Your task to perform on an android device: open app "Gmail" Image 0: 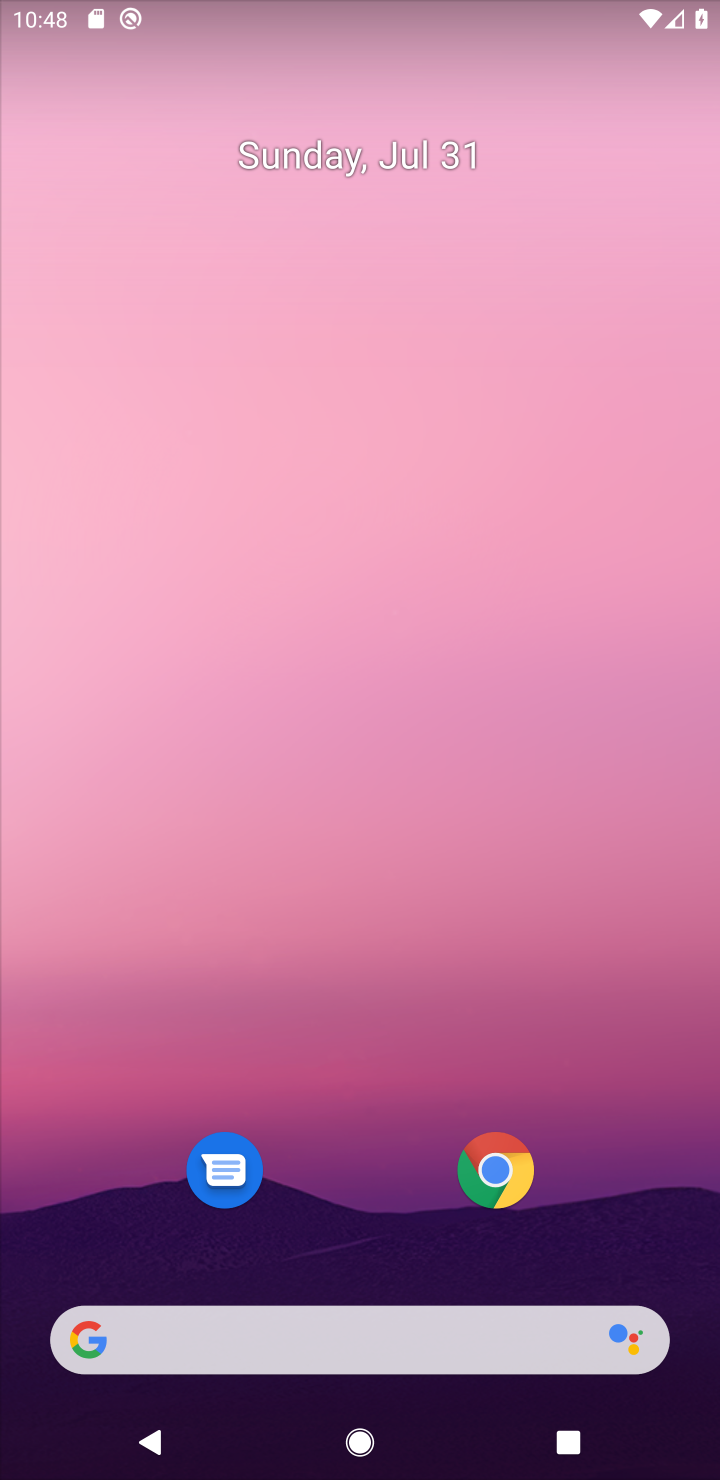
Step 0: drag from (638, 1247) to (553, 0)
Your task to perform on an android device: open app "Gmail" Image 1: 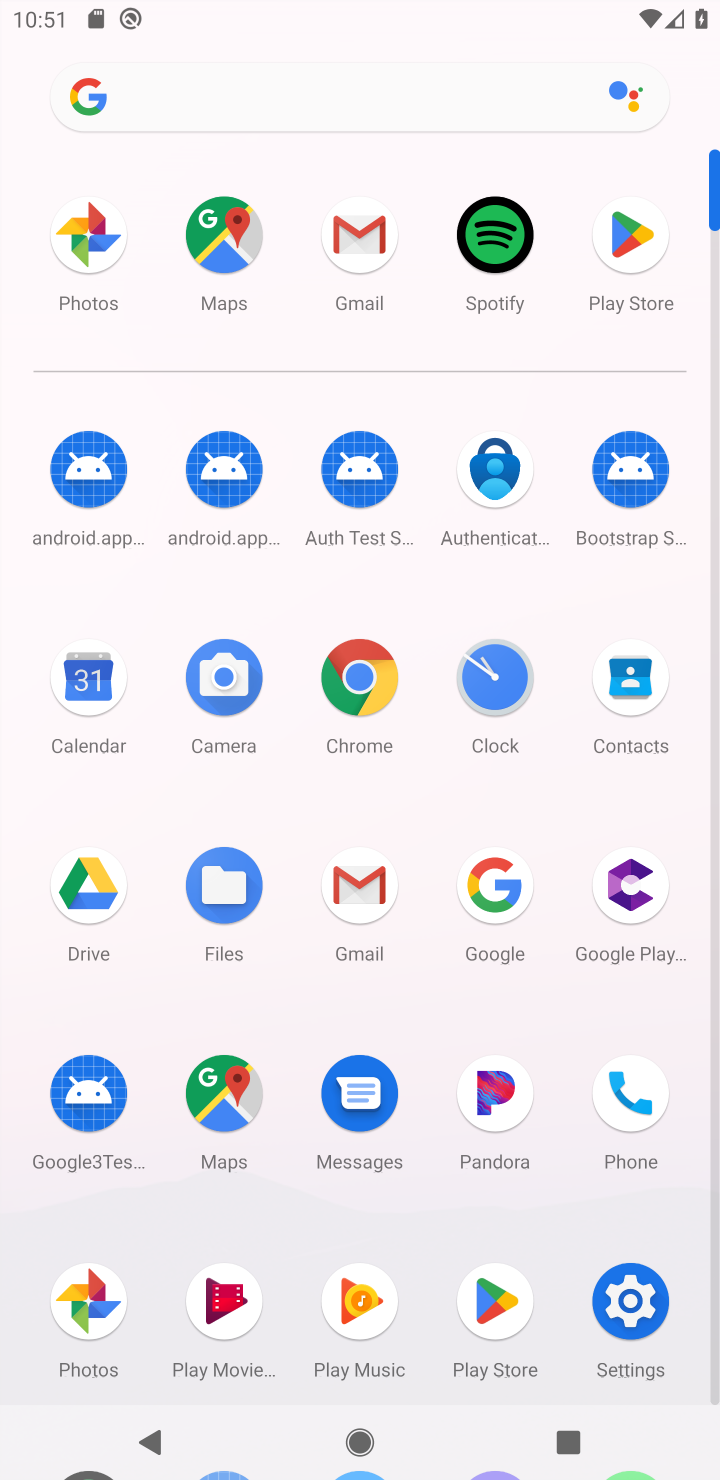
Step 1: click (655, 235)
Your task to perform on an android device: open app "Gmail" Image 2: 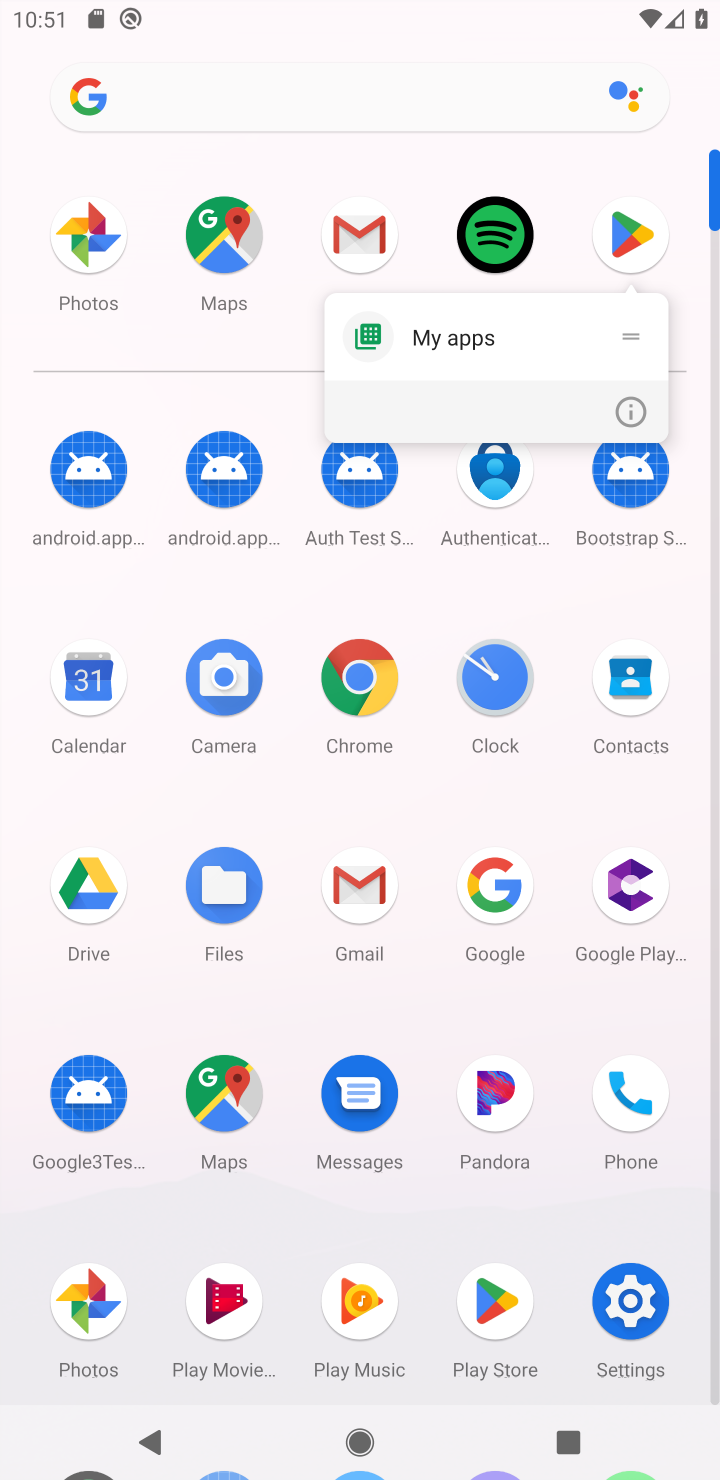
Step 2: click (652, 233)
Your task to perform on an android device: open app "Gmail" Image 3: 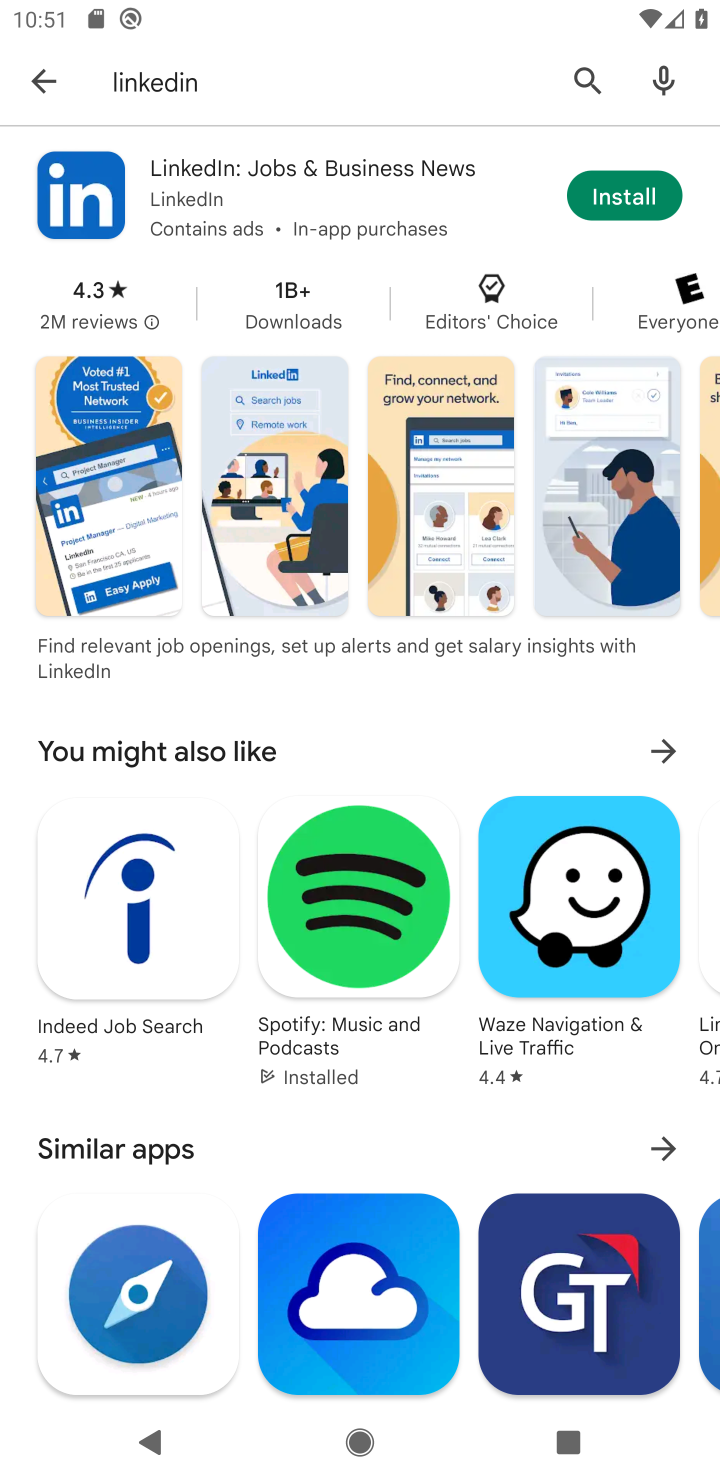
Step 3: press back button
Your task to perform on an android device: open app "Gmail" Image 4: 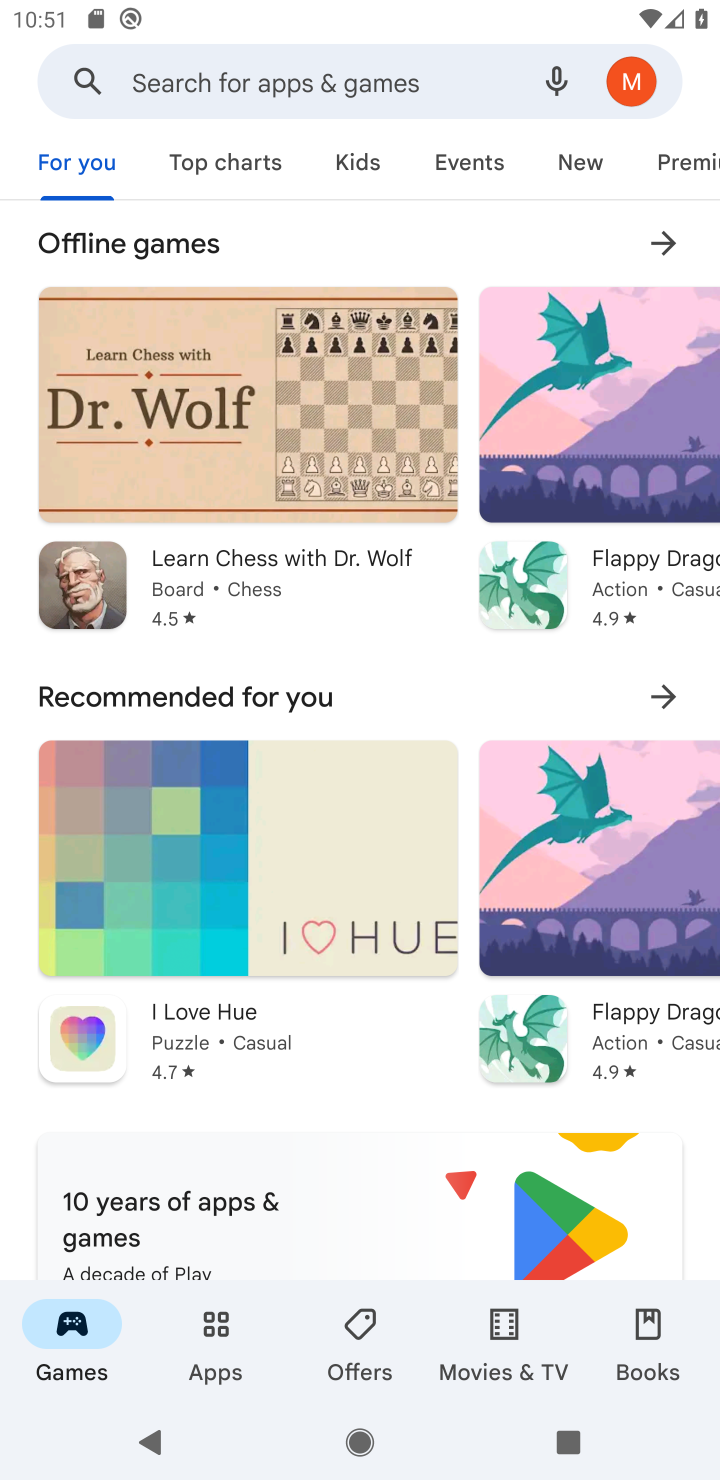
Step 4: click (135, 83)
Your task to perform on an android device: open app "Gmail" Image 5: 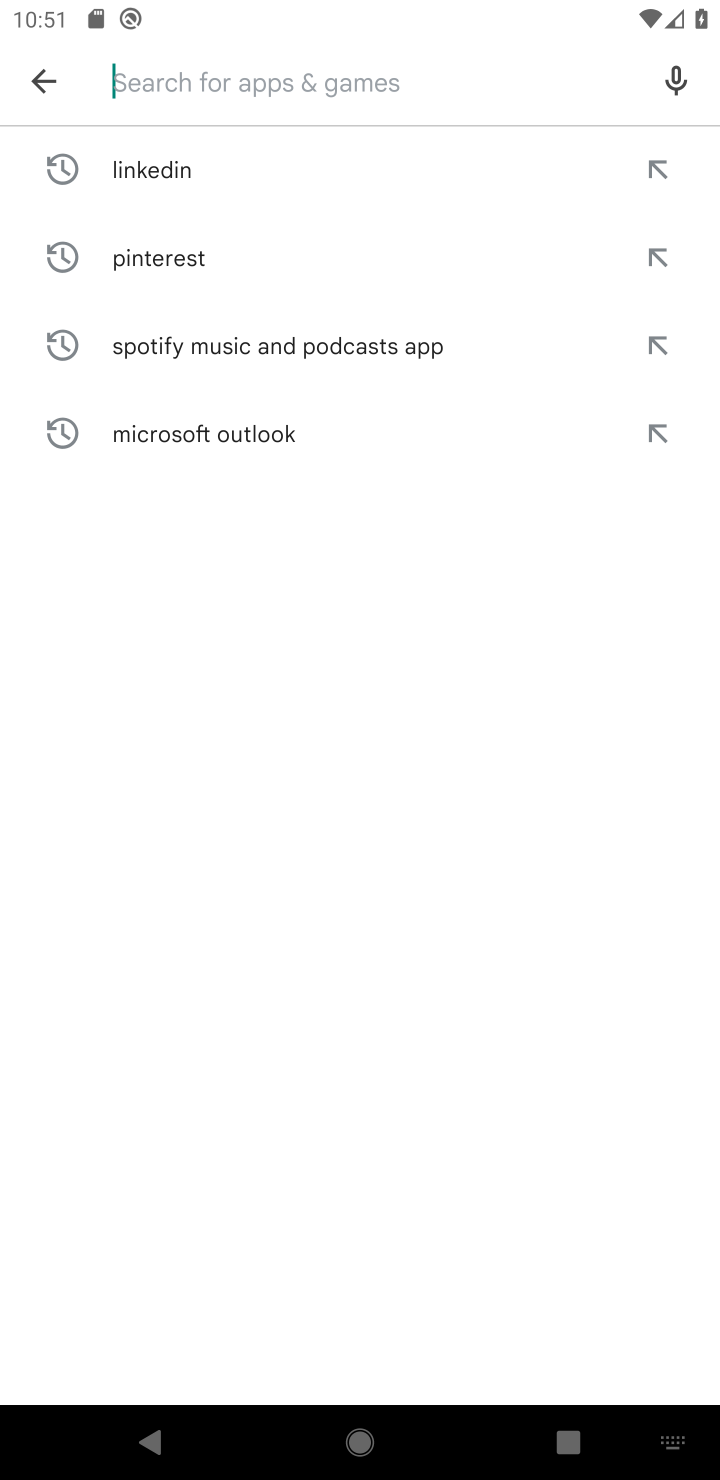
Step 5: type "Gmail"
Your task to perform on an android device: open app "Gmail" Image 6: 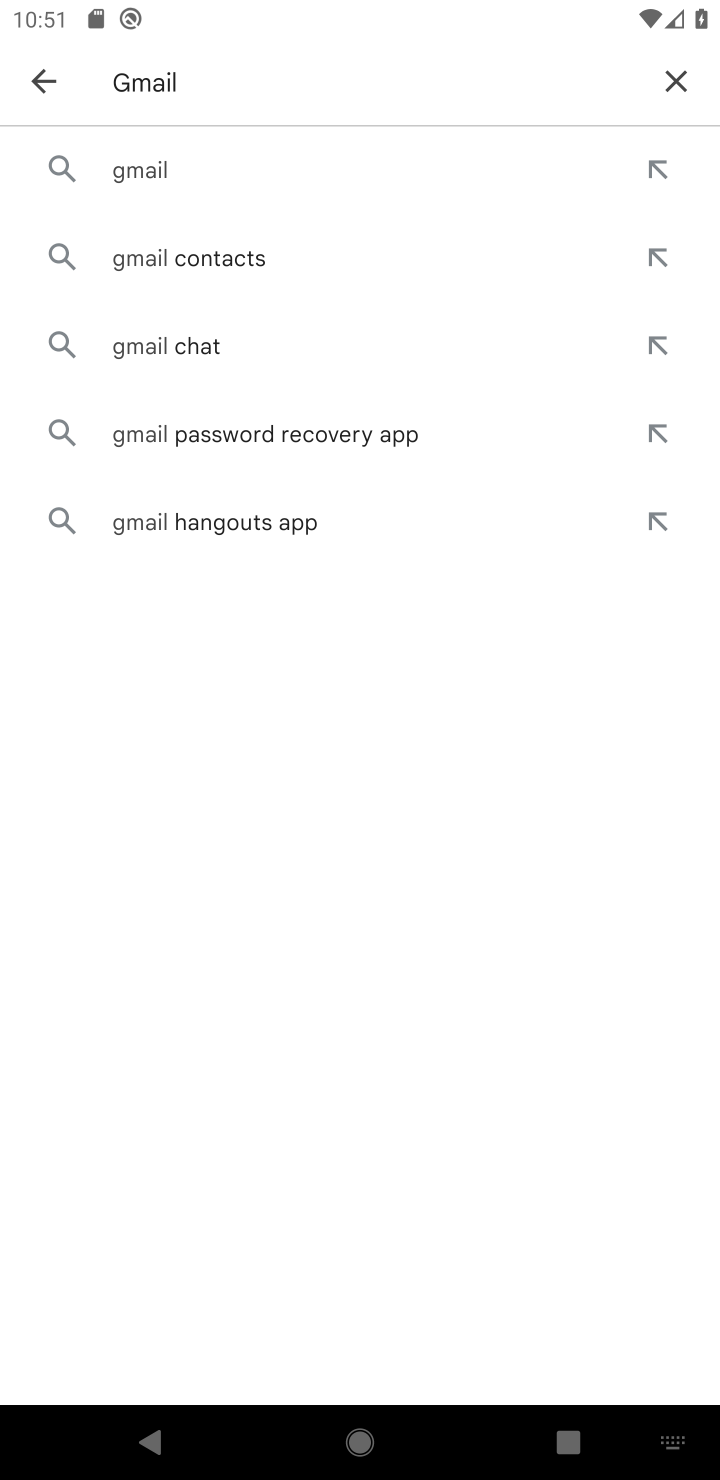
Step 6: click (216, 158)
Your task to perform on an android device: open app "Gmail" Image 7: 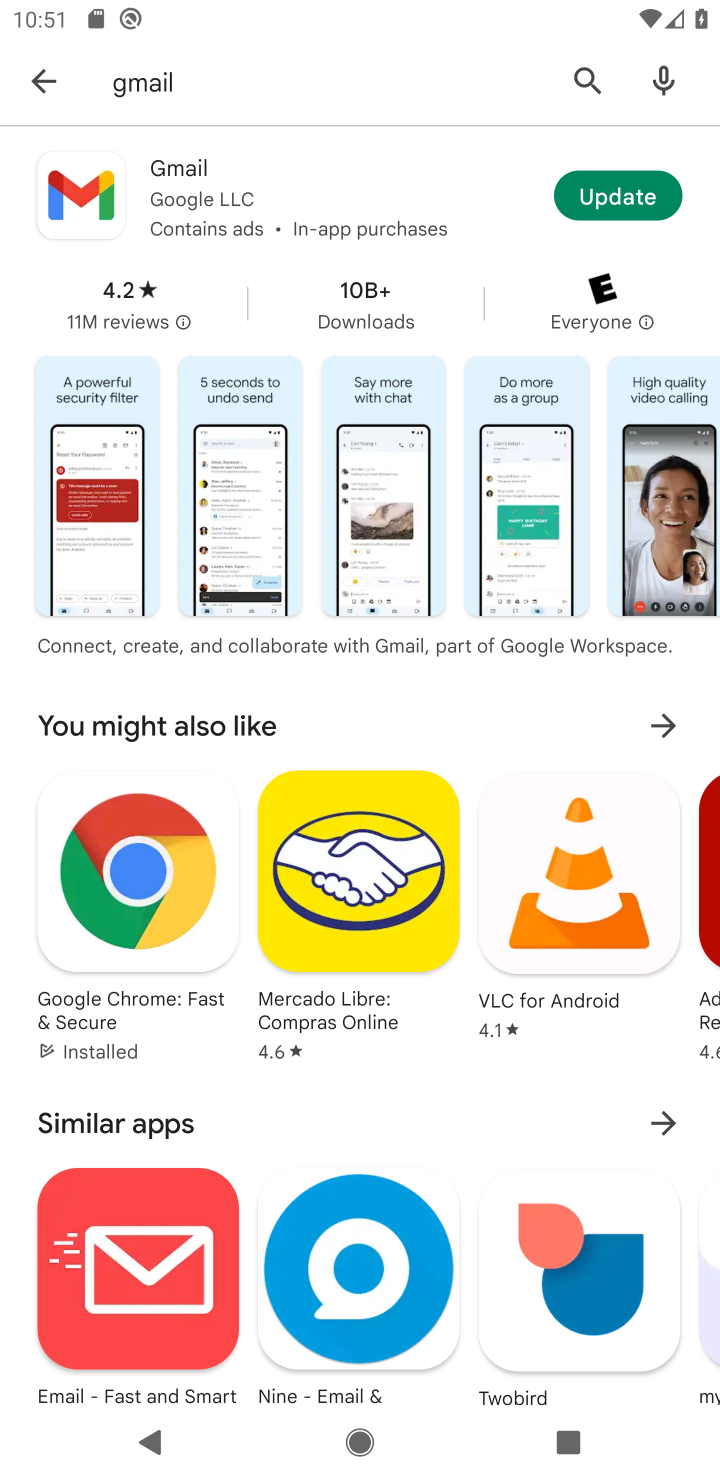
Step 7: click (644, 194)
Your task to perform on an android device: open app "Gmail" Image 8: 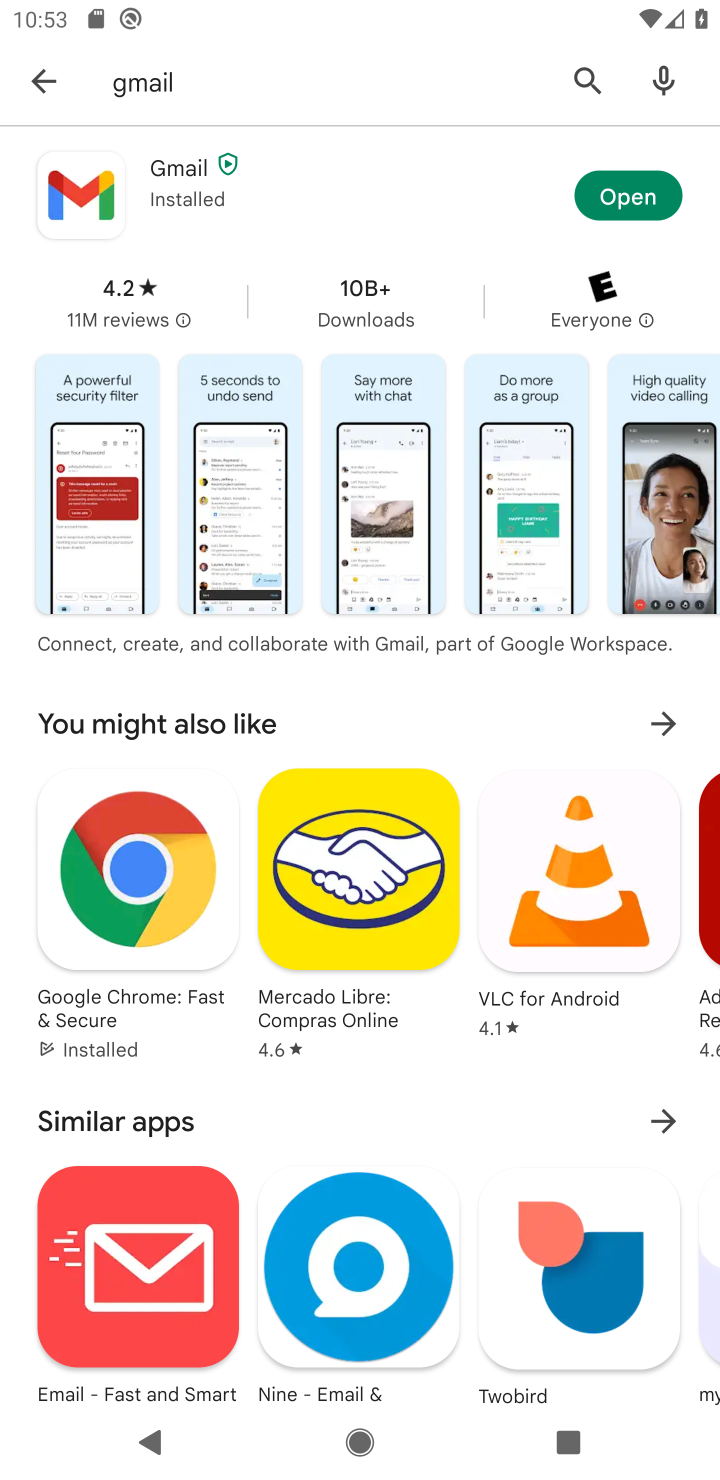
Step 8: task complete